Your task to perform on an android device: open chrome and create a bookmark for the current page Image 0: 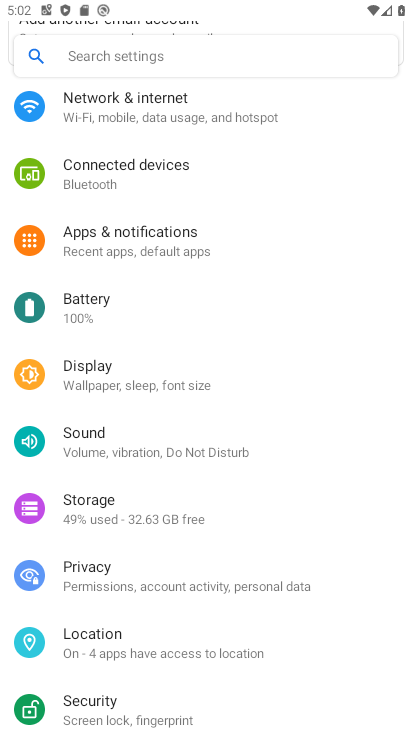
Step 0: press home button
Your task to perform on an android device: open chrome and create a bookmark for the current page Image 1: 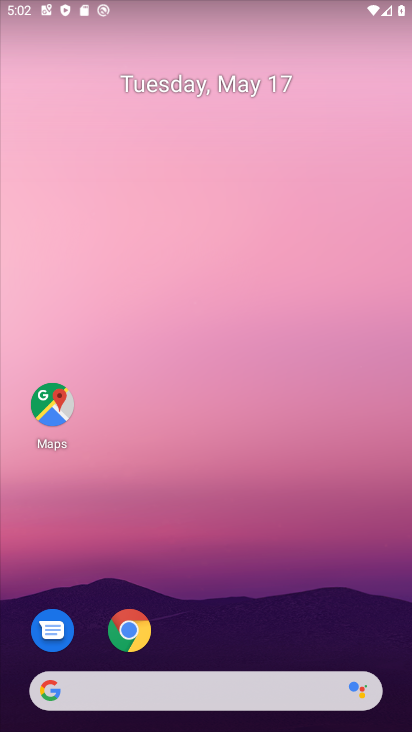
Step 1: click (128, 625)
Your task to perform on an android device: open chrome and create a bookmark for the current page Image 2: 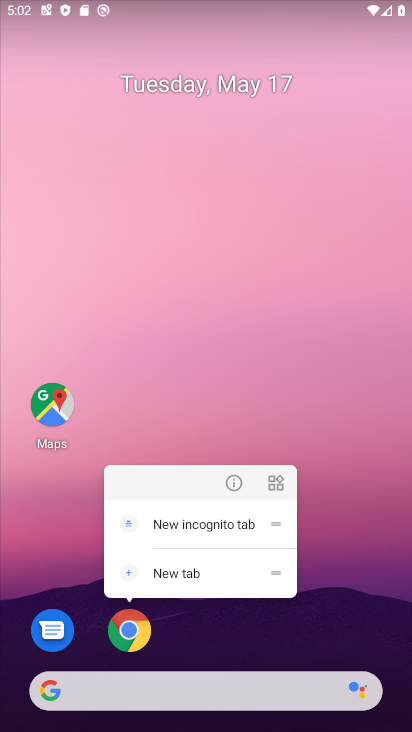
Step 2: click (128, 637)
Your task to perform on an android device: open chrome and create a bookmark for the current page Image 3: 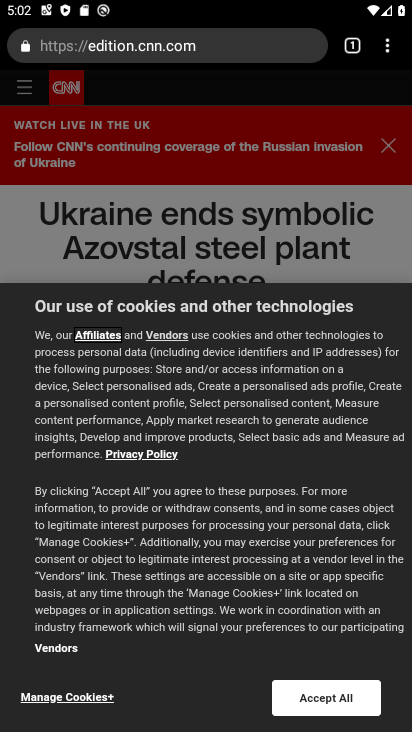
Step 3: task complete